Your task to perform on an android device: show emergency info Image 0: 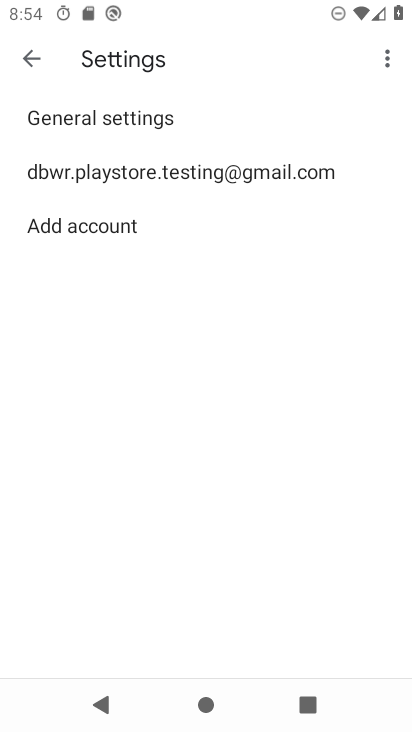
Step 0: press home button
Your task to perform on an android device: show emergency info Image 1: 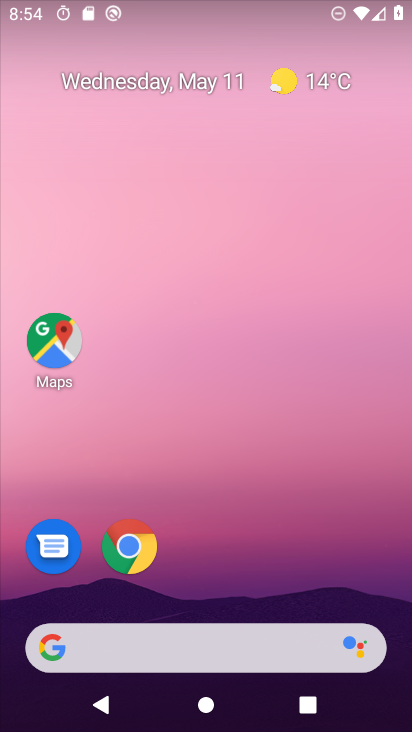
Step 1: drag from (218, 617) to (214, 464)
Your task to perform on an android device: show emergency info Image 2: 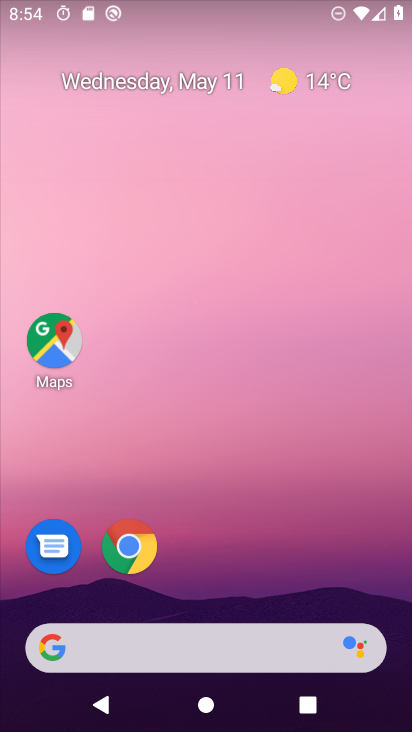
Step 2: drag from (205, 653) to (192, 461)
Your task to perform on an android device: show emergency info Image 3: 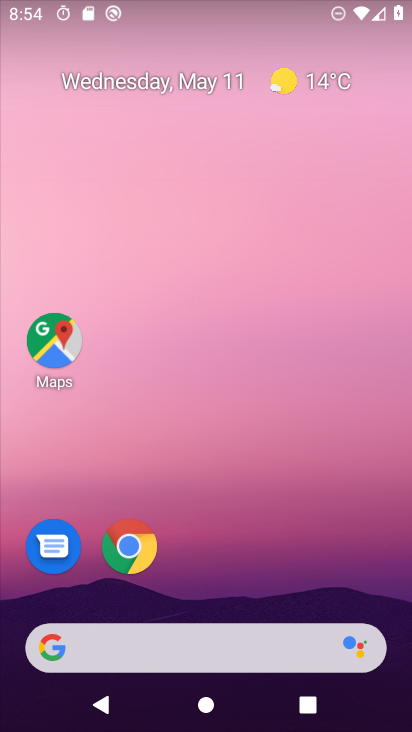
Step 3: drag from (227, 624) to (216, 94)
Your task to perform on an android device: show emergency info Image 4: 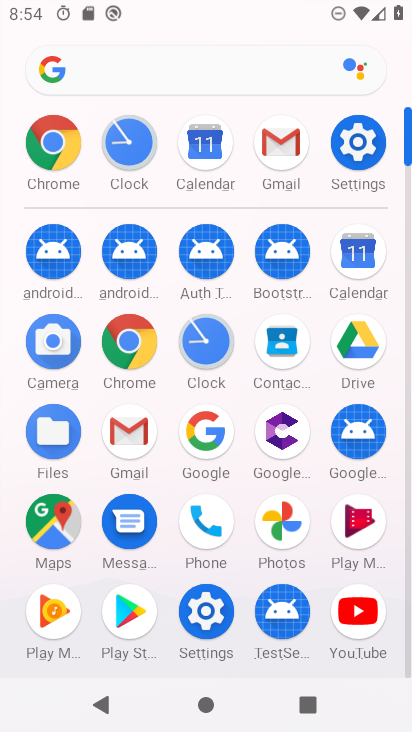
Step 4: click (363, 151)
Your task to perform on an android device: show emergency info Image 5: 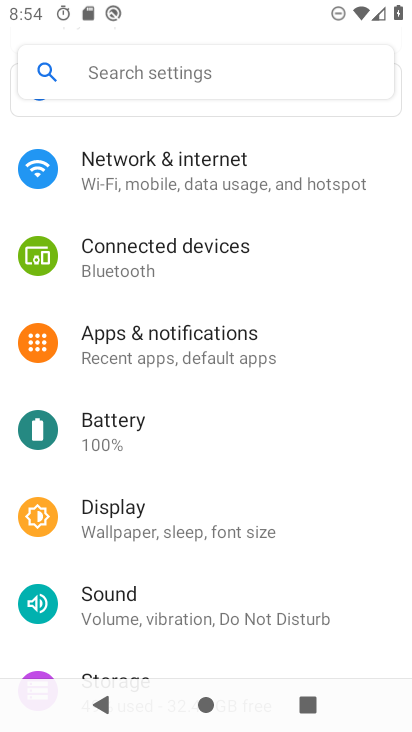
Step 5: drag from (35, 551) to (50, 197)
Your task to perform on an android device: show emergency info Image 6: 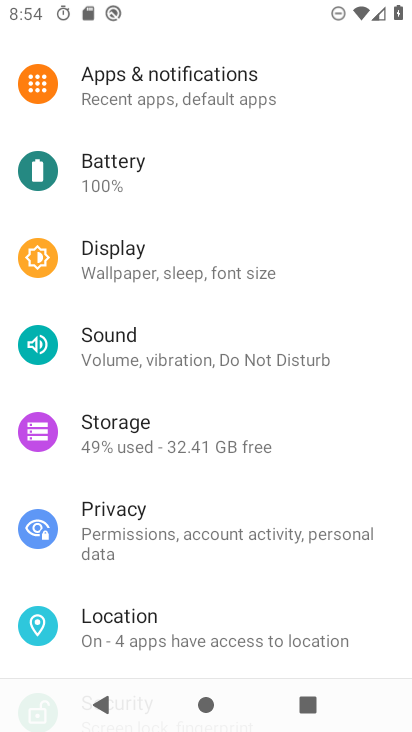
Step 6: drag from (70, 556) to (81, 102)
Your task to perform on an android device: show emergency info Image 7: 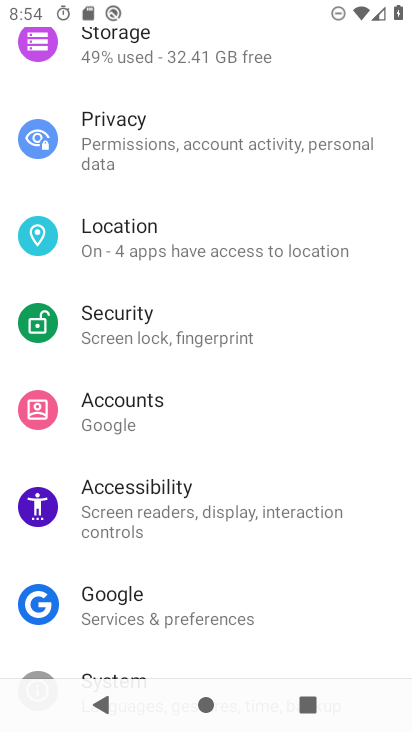
Step 7: drag from (147, 527) to (159, 120)
Your task to perform on an android device: show emergency info Image 8: 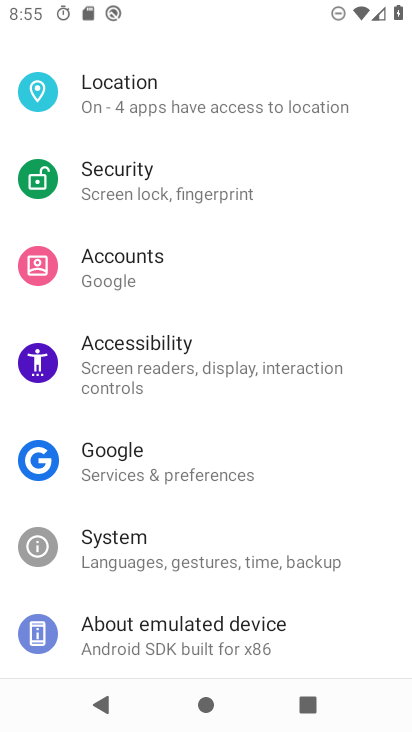
Step 8: click (126, 647)
Your task to perform on an android device: show emergency info Image 9: 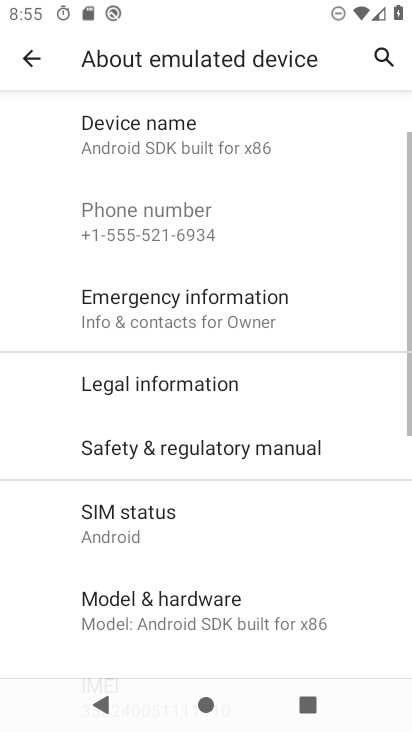
Step 9: click (138, 275)
Your task to perform on an android device: show emergency info Image 10: 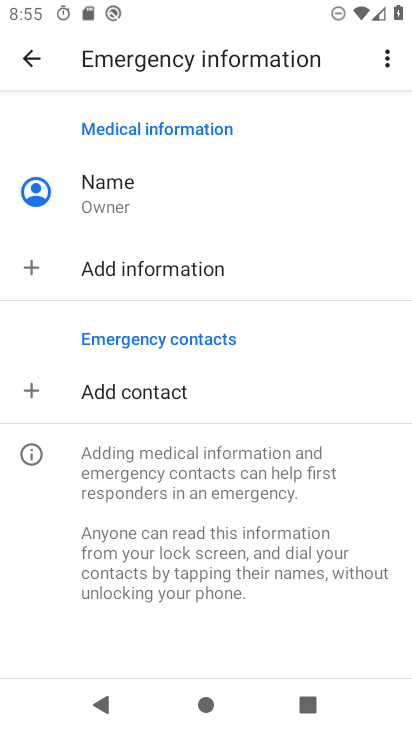
Step 10: task complete